Your task to perform on an android device: change text size in settings app Image 0: 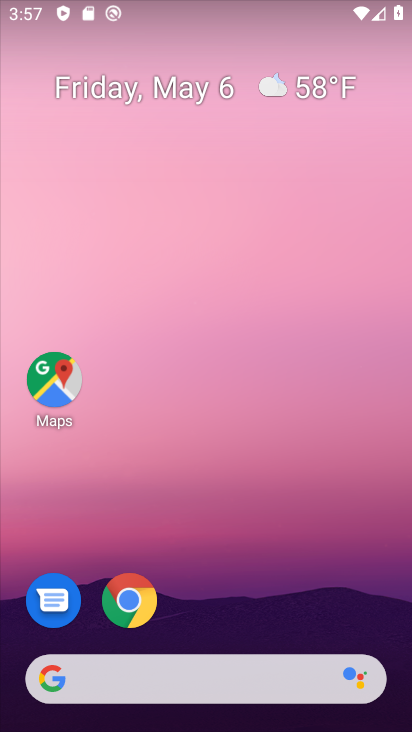
Step 0: drag from (238, 636) to (314, 62)
Your task to perform on an android device: change text size in settings app Image 1: 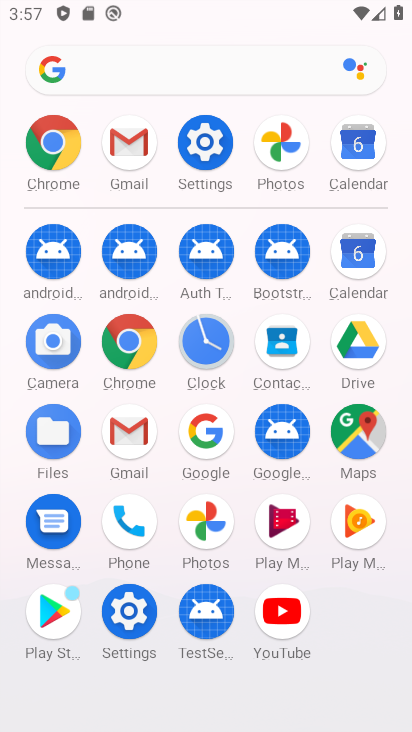
Step 1: click (212, 170)
Your task to perform on an android device: change text size in settings app Image 2: 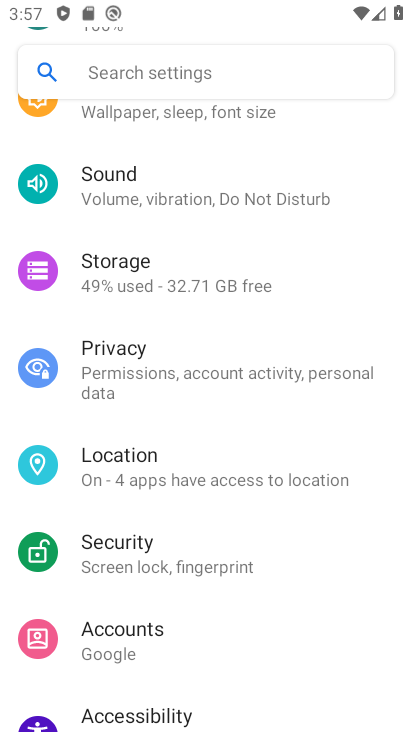
Step 2: drag from (190, 252) to (228, 659)
Your task to perform on an android device: change text size in settings app Image 3: 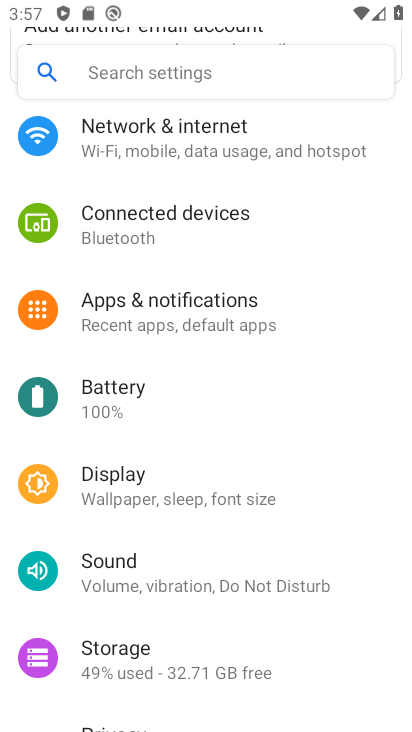
Step 3: click (147, 196)
Your task to perform on an android device: change text size in settings app Image 4: 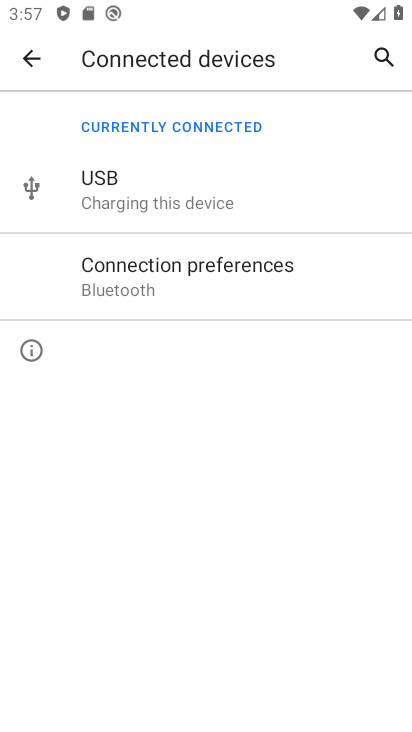
Step 4: click (42, 58)
Your task to perform on an android device: change text size in settings app Image 5: 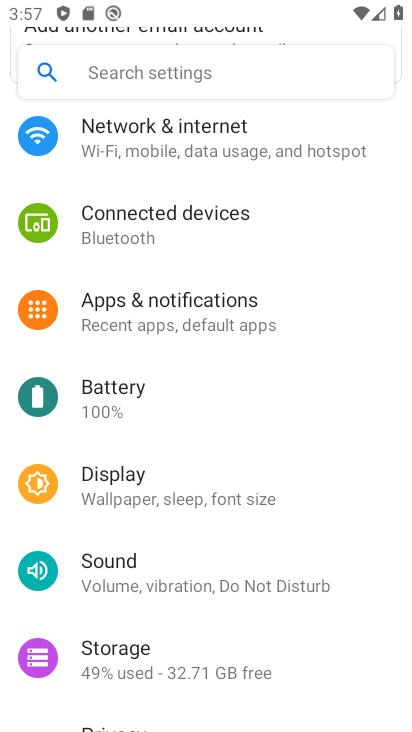
Step 5: click (177, 503)
Your task to perform on an android device: change text size in settings app Image 6: 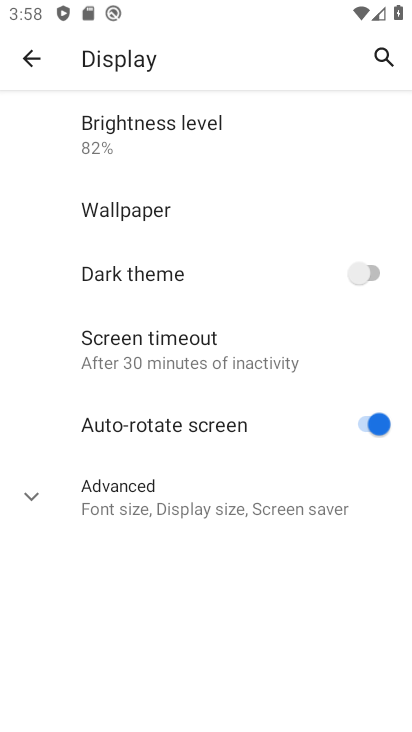
Step 6: click (156, 493)
Your task to perform on an android device: change text size in settings app Image 7: 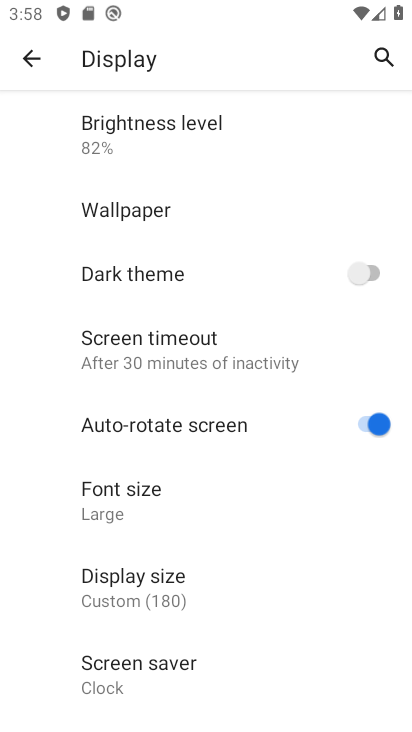
Step 7: click (145, 503)
Your task to perform on an android device: change text size in settings app Image 8: 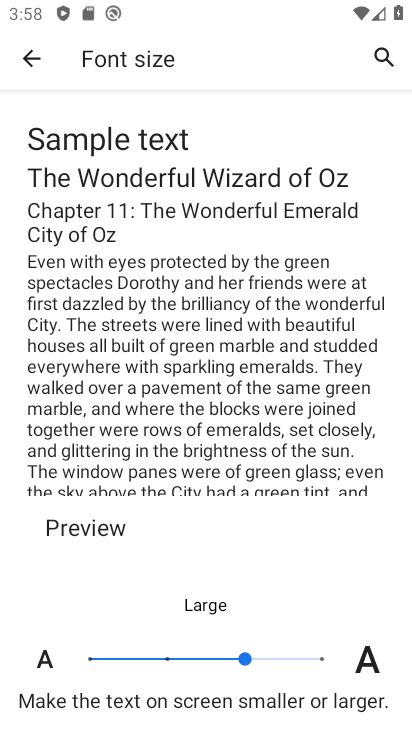
Step 8: click (153, 658)
Your task to perform on an android device: change text size in settings app Image 9: 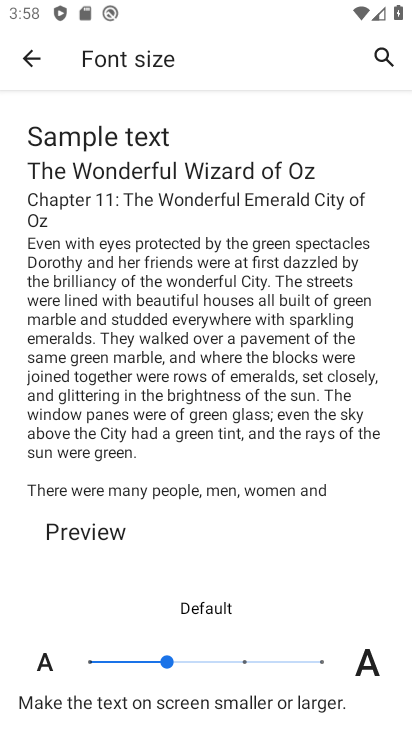
Step 9: task complete